Your task to perform on an android device: Turn off the flashlight Image 0: 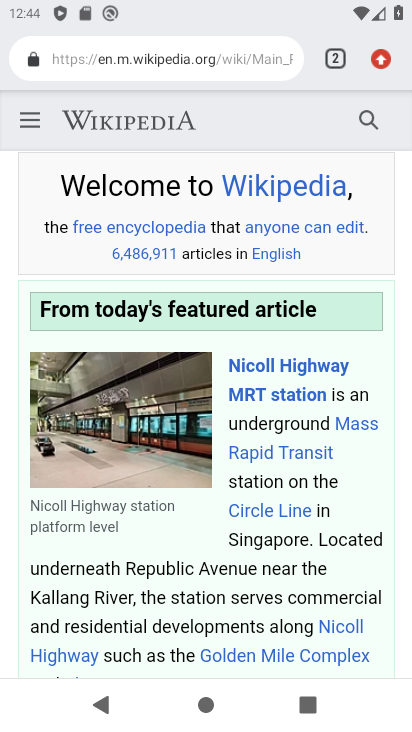
Step 0: press back button
Your task to perform on an android device: Turn off the flashlight Image 1: 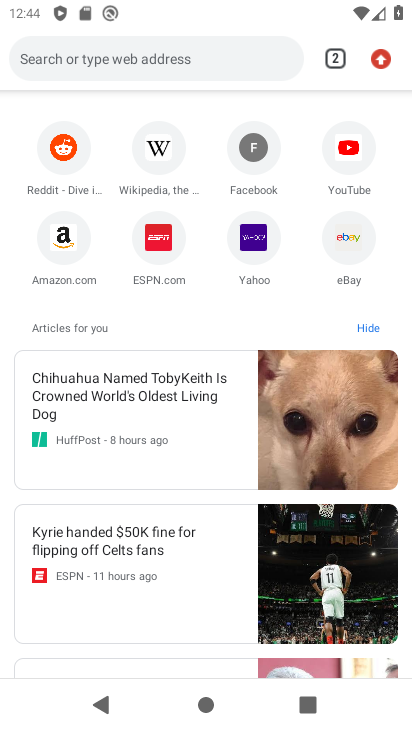
Step 1: click (147, 49)
Your task to perform on an android device: Turn off the flashlight Image 2: 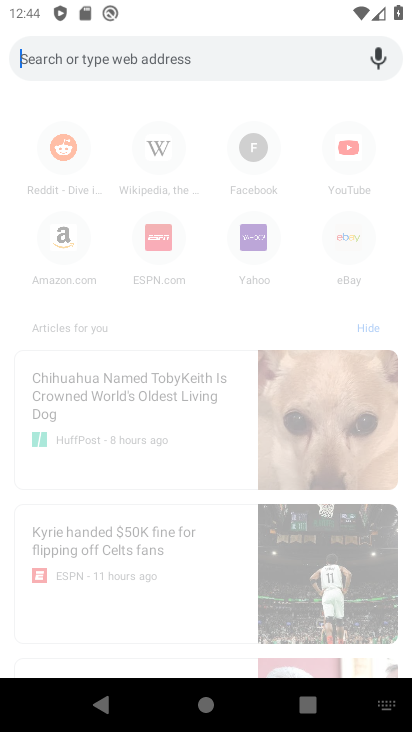
Step 2: type "flashlight"
Your task to perform on an android device: Turn off the flashlight Image 3: 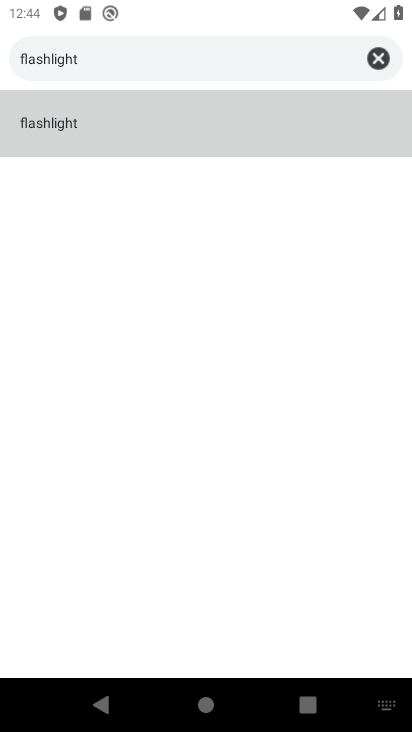
Step 3: click (60, 135)
Your task to perform on an android device: Turn off the flashlight Image 4: 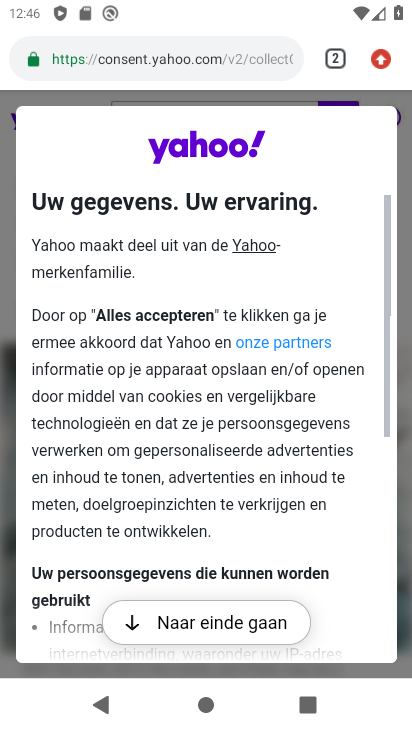
Step 4: press back button
Your task to perform on an android device: Turn off the flashlight Image 5: 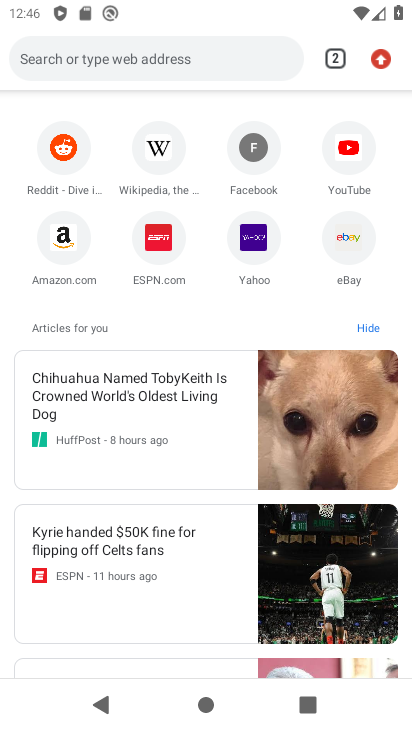
Step 5: press back button
Your task to perform on an android device: Turn off the flashlight Image 6: 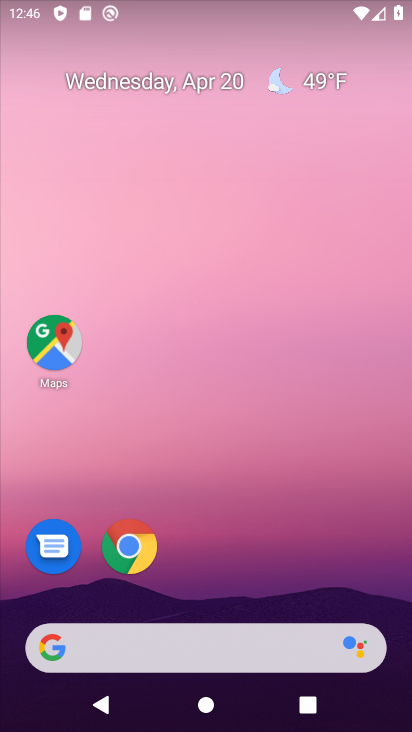
Step 6: drag from (316, 486) to (338, 12)
Your task to perform on an android device: Turn off the flashlight Image 7: 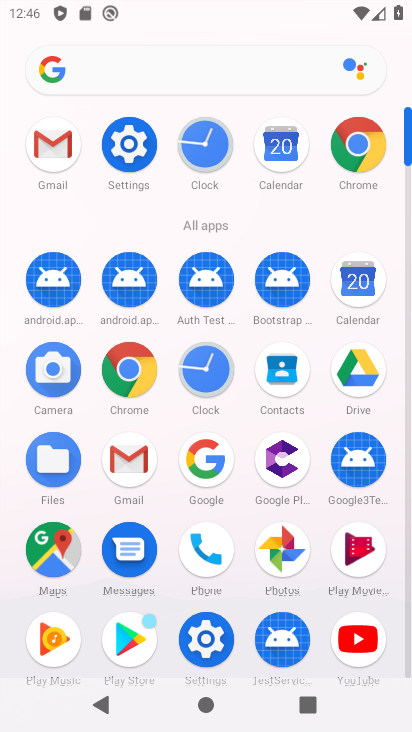
Step 7: click (124, 156)
Your task to perform on an android device: Turn off the flashlight Image 8: 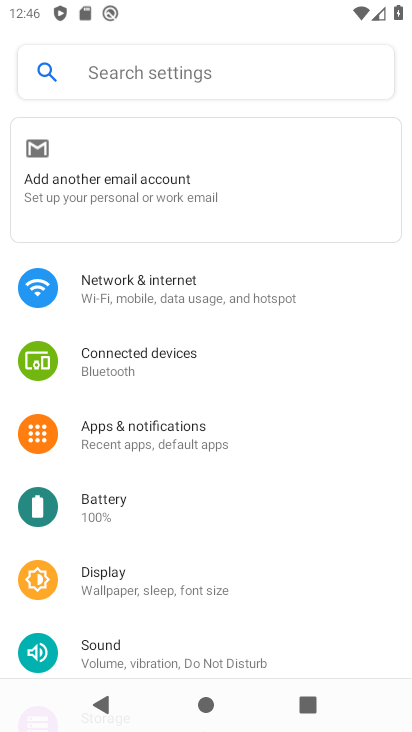
Step 8: click (138, 59)
Your task to perform on an android device: Turn off the flashlight Image 9: 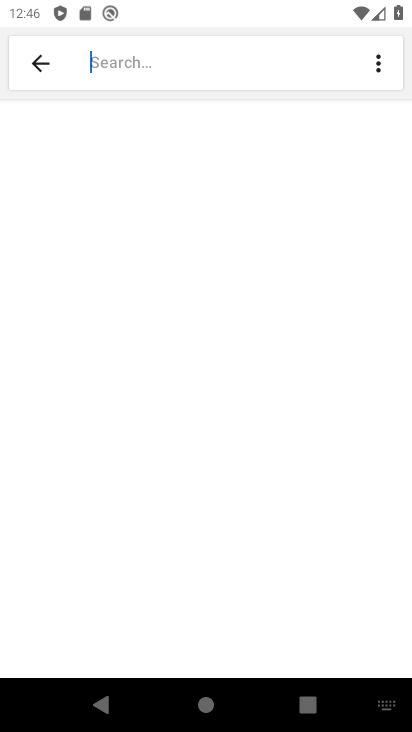
Step 9: type "flashlight"
Your task to perform on an android device: Turn off the flashlight Image 10: 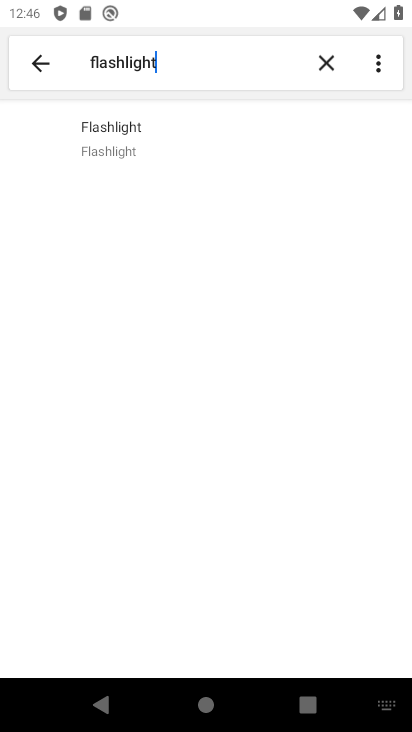
Step 10: click (156, 139)
Your task to perform on an android device: Turn off the flashlight Image 11: 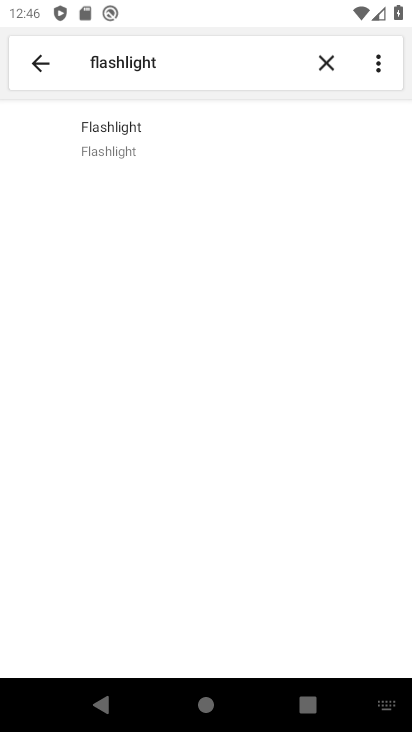
Step 11: task complete